Your task to perform on an android device: turn on airplane mode Image 0: 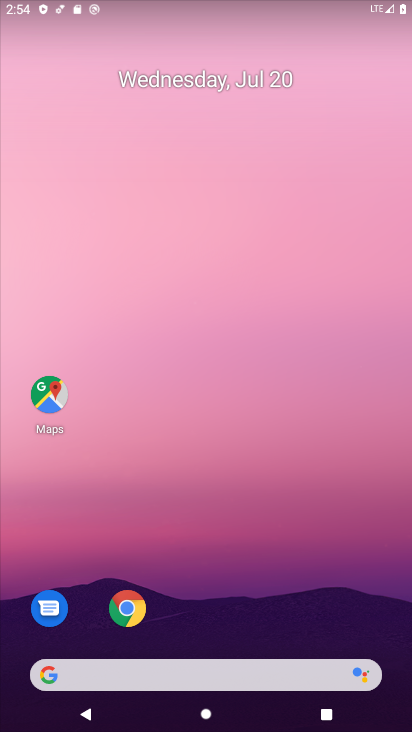
Step 0: drag from (304, 557) to (287, 26)
Your task to perform on an android device: turn on airplane mode Image 1: 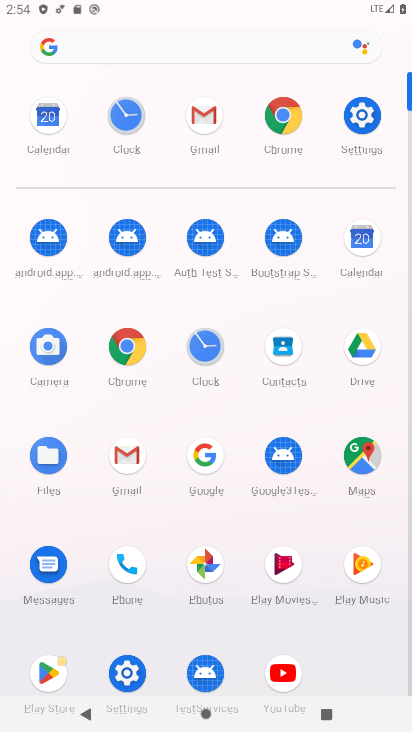
Step 1: click (117, 573)
Your task to perform on an android device: turn on airplane mode Image 2: 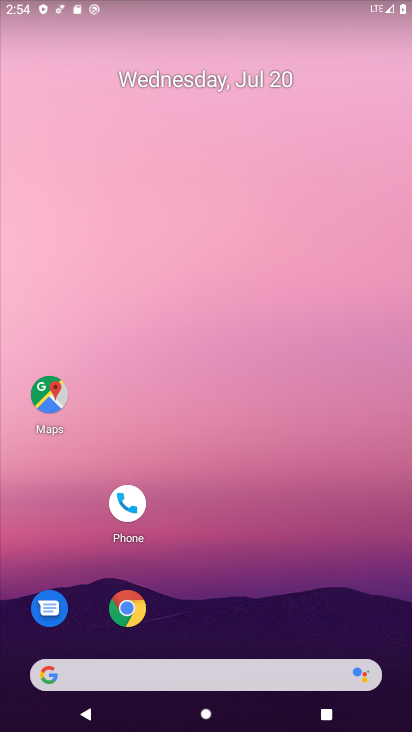
Step 2: drag from (270, 591) to (279, 139)
Your task to perform on an android device: turn on airplane mode Image 3: 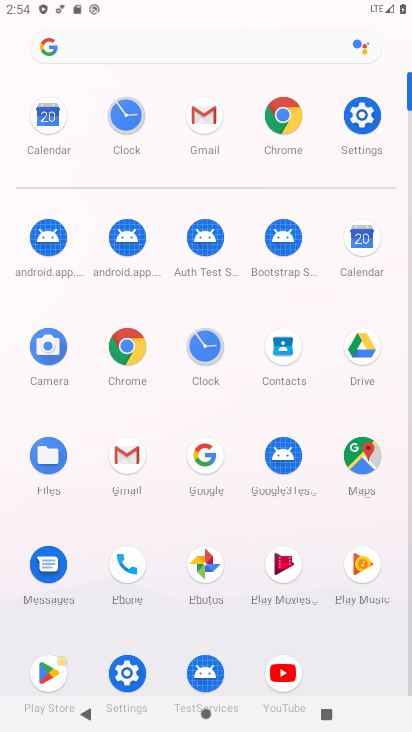
Step 3: click (355, 115)
Your task to perform on an android device: turn on airplane mode Image 4: 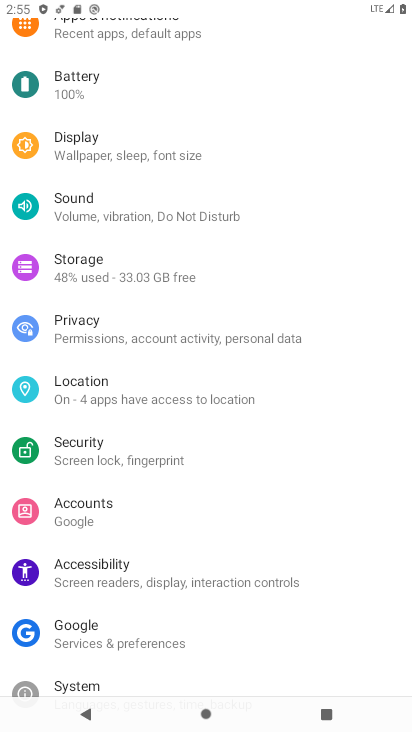
Step 4: drag from (169, 89) to (128, 618)
Your task to perform on an android device: turn on airplane mode Image 5: 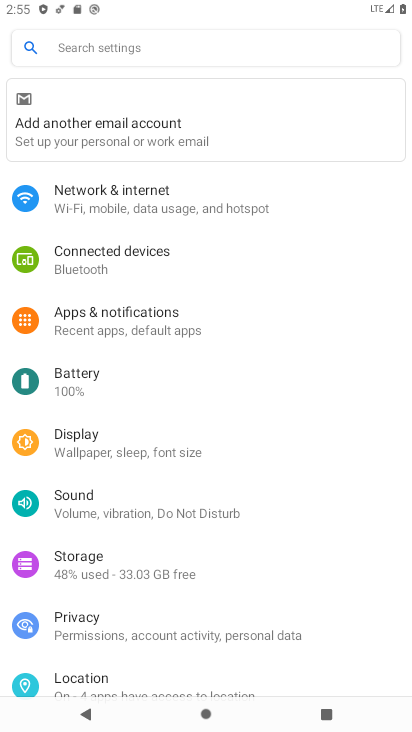
Step 5: click (136, 181)
Your task to perform on an android device: turn on airplane mode Image 6: 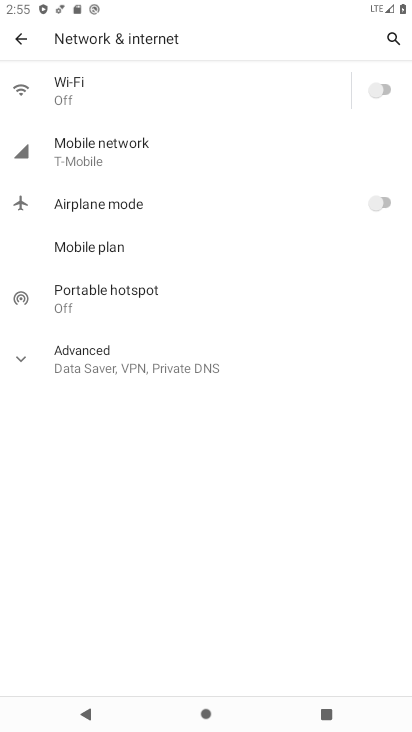
Step 6: click (395, 195)
Your task to perform on an android device: turn on airplane mode Image 7: 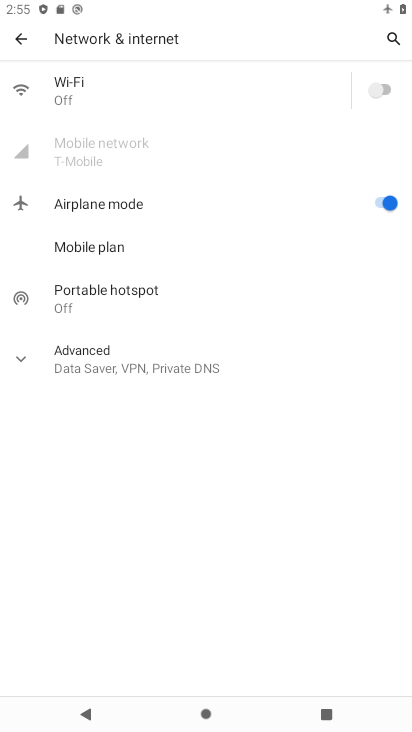
Step 7: task complete